Your task to perform on an android device: search for starred emails in the gmail app Image 0: 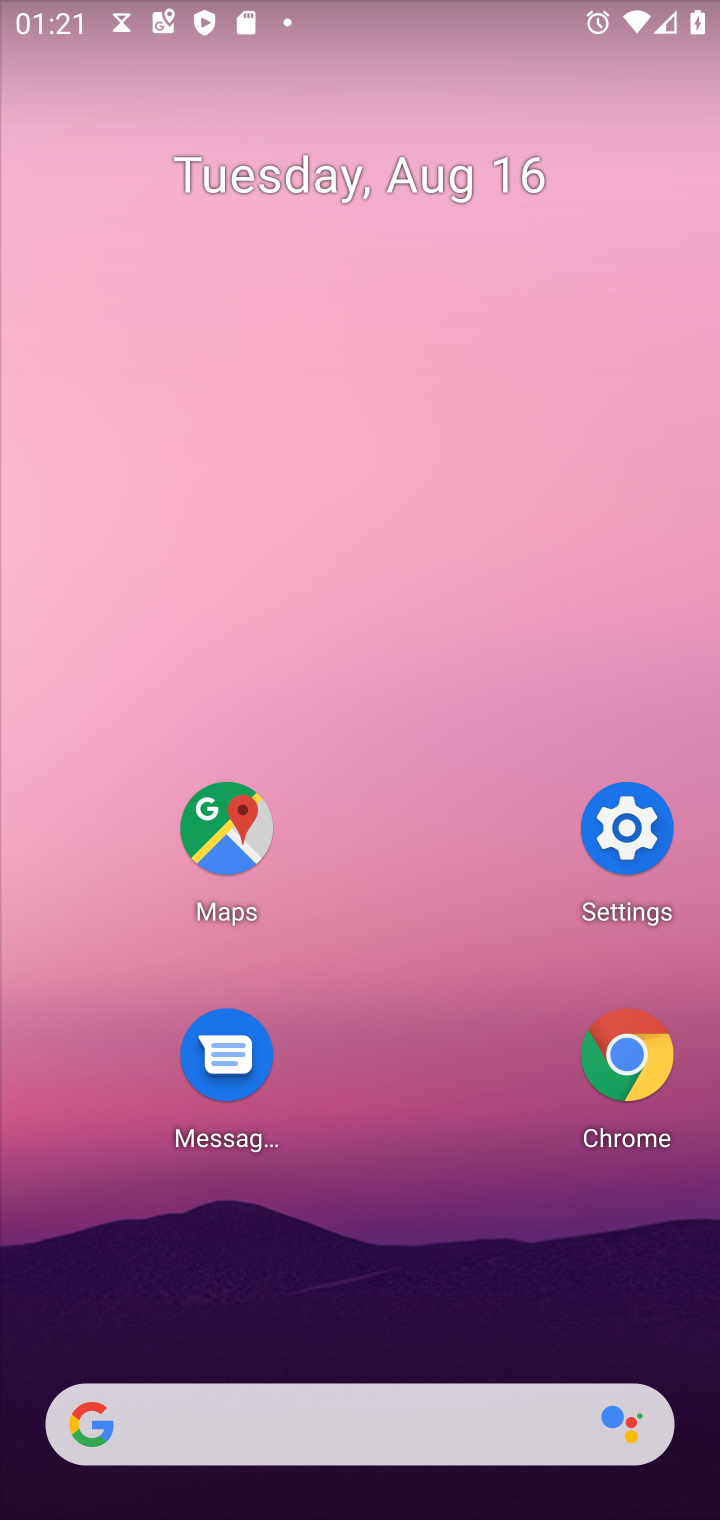
Step 0: drag from (452, 893) to (595, 495)
Your task to perform on an android device: search for starred emails in the gmail app Image 1: 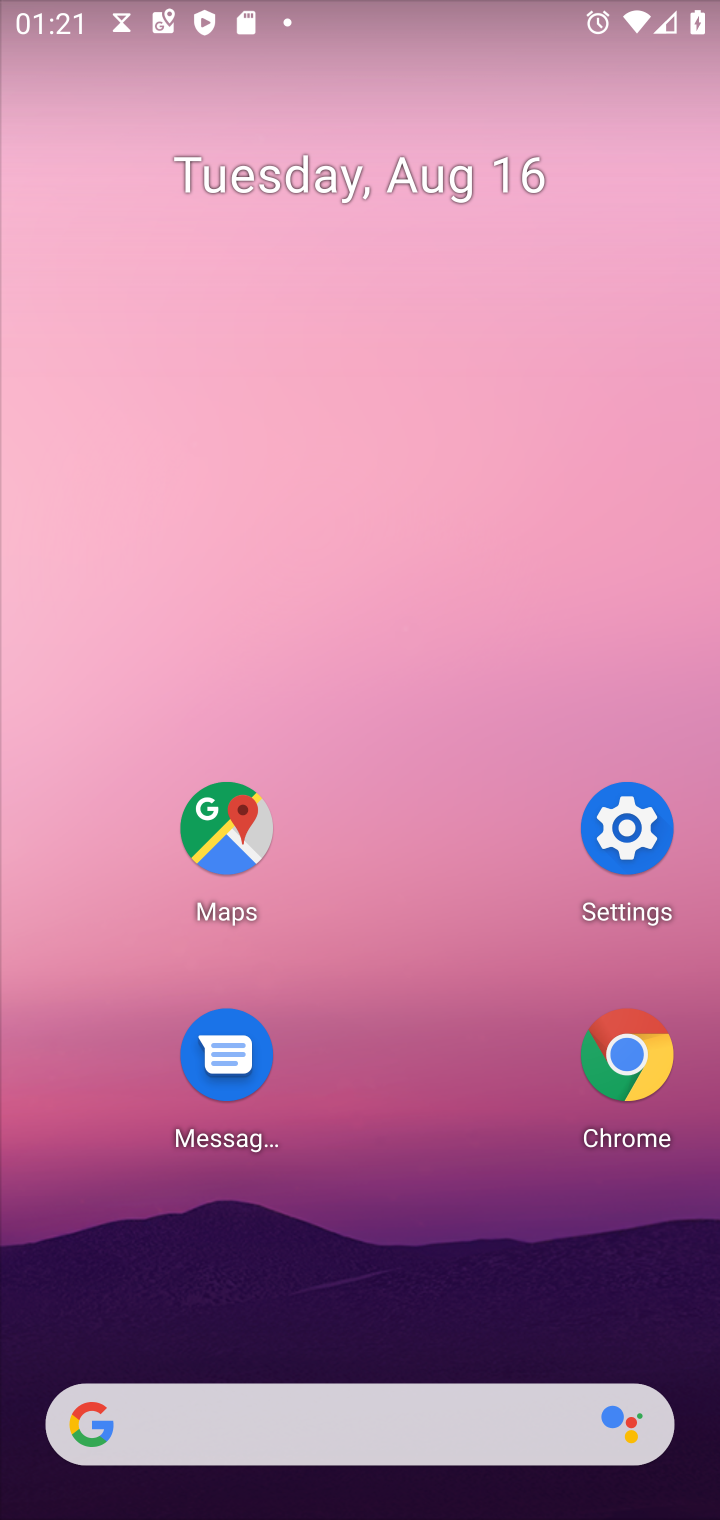
Step 1: drag from (348, 1256) to (570, 386)
Your task to perform on an android device: search for starred emails in the gmail app Image 2: 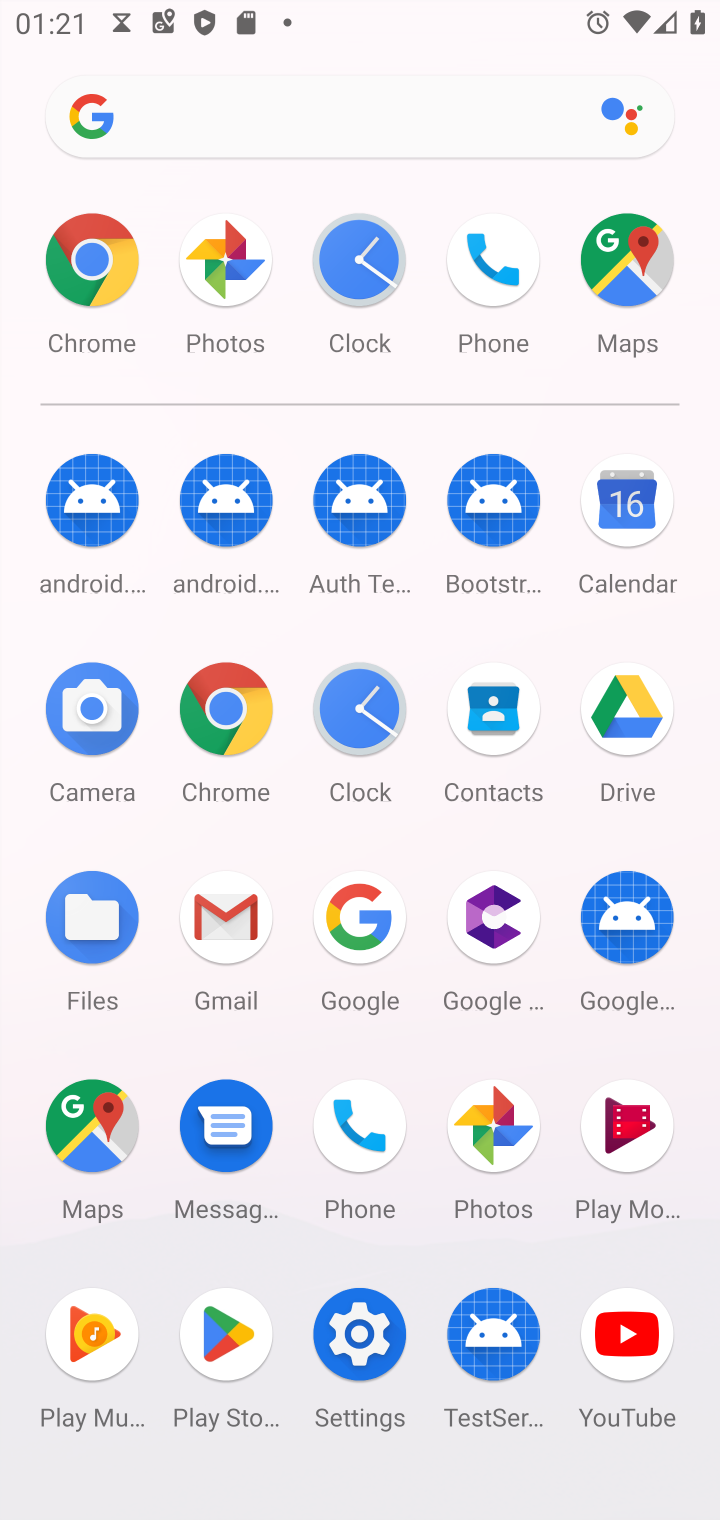
Step 2: click (230, 922)
Your task to perform on an android device: search for starred emails in the gmail app Image 3: 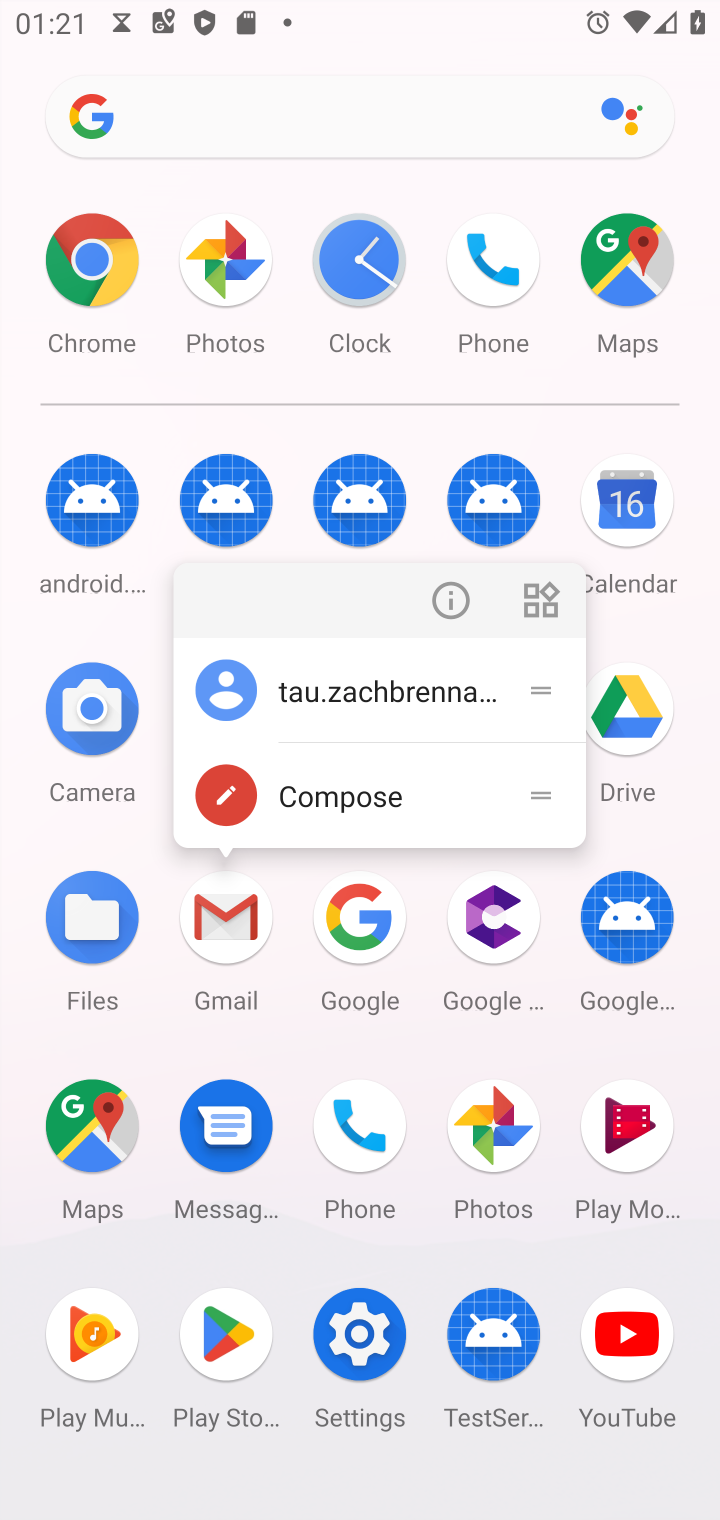
Step 3: click (230, 918)
Your task to perform on an android device: search for starred emails in the gmail app Image 4: 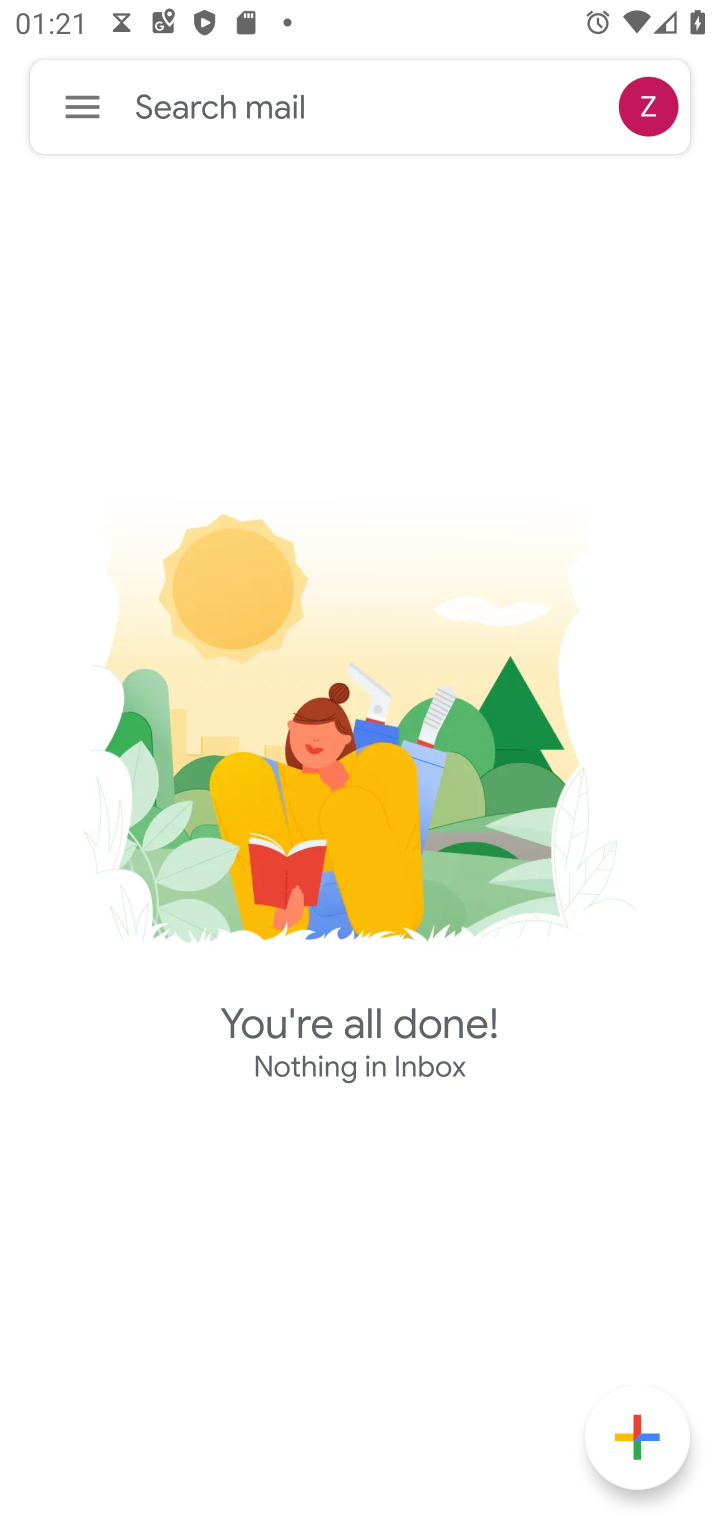
Step 4: click (77, 112)
Your task to perform on an android device: search for starred emails in the gmail app Image 5: 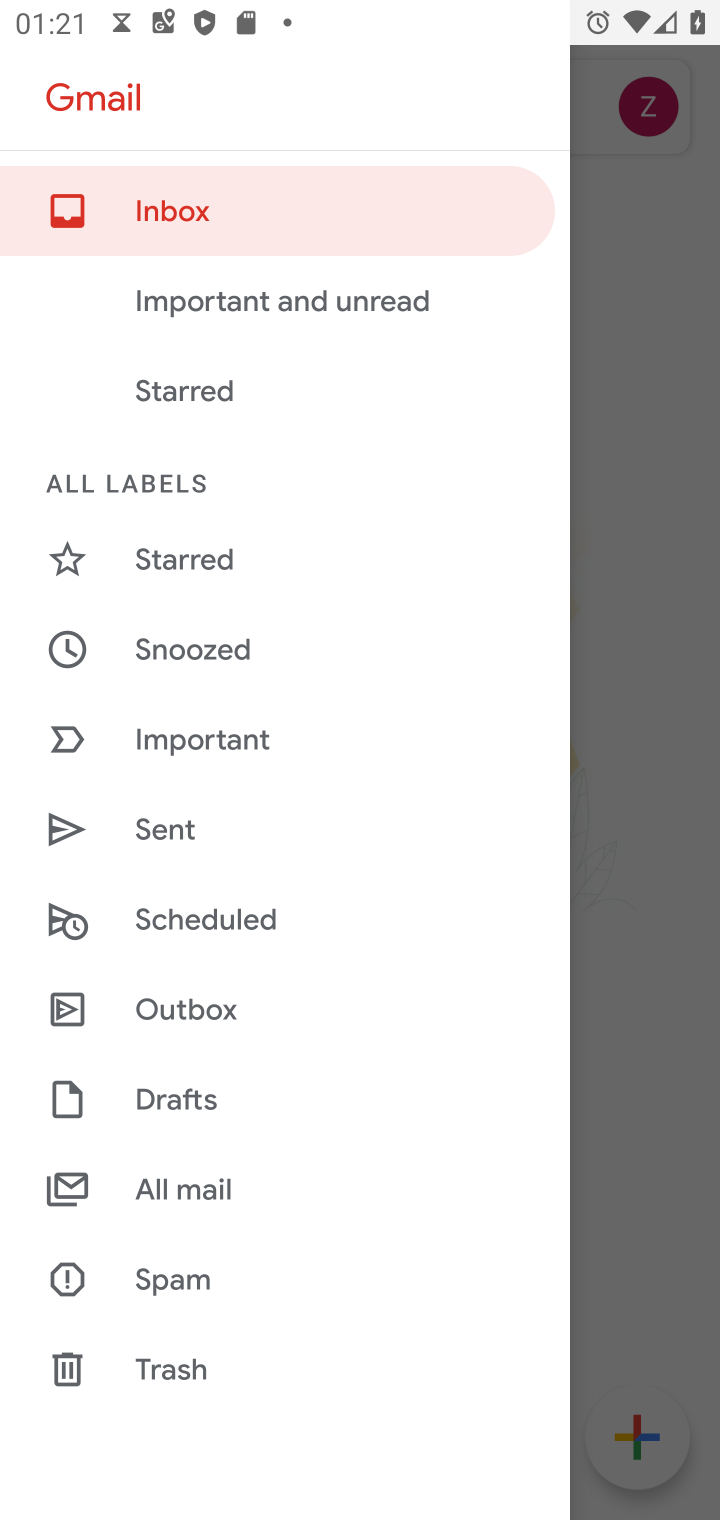
Step 5: click (218, 558)
Your task to perform on an android device: search for starred emails in the gmail app Image 6: 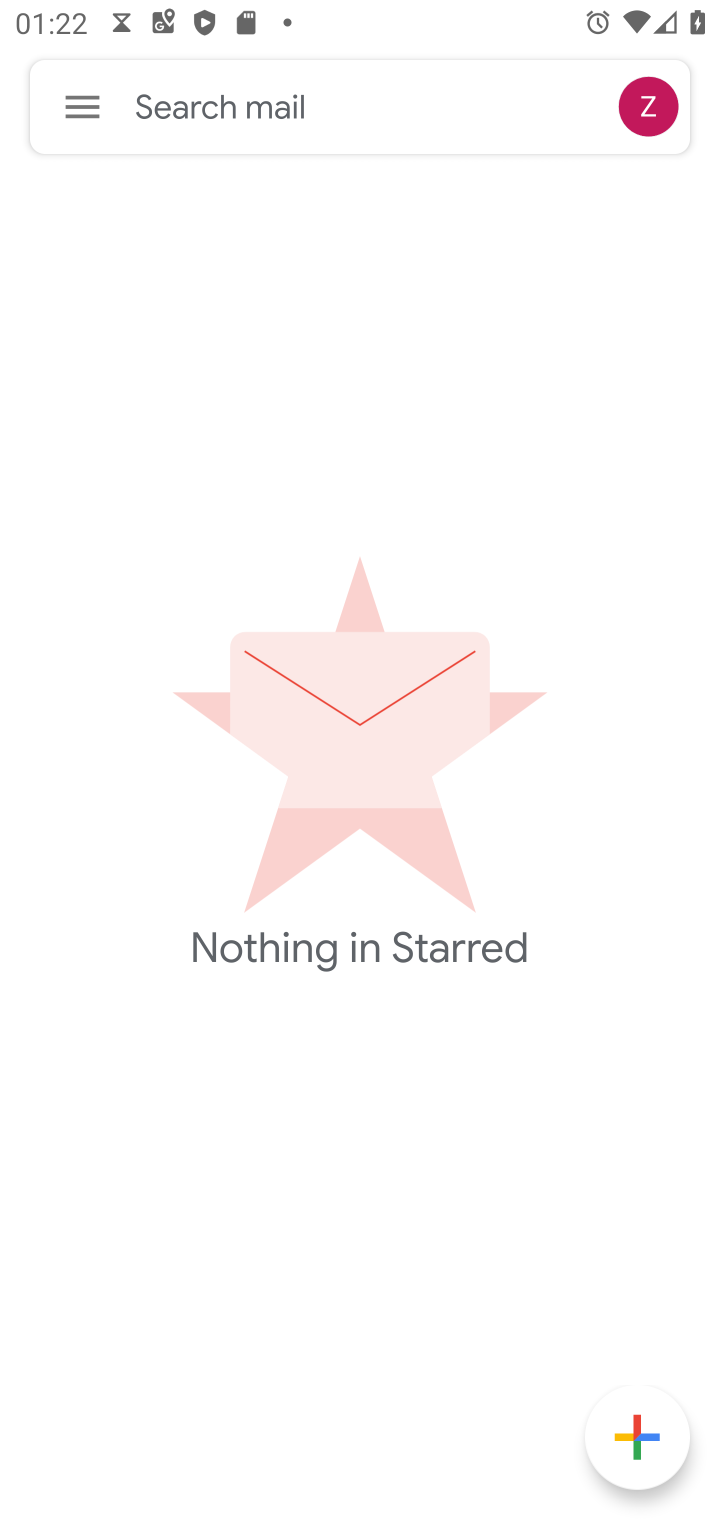
Step 6: task complete